Your task to perform on an android device: Search for Mexican restaurants on Maps Image 0: 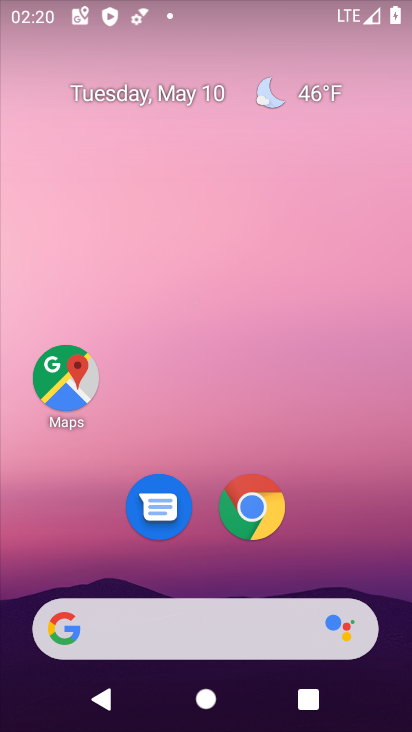
Step 0: drag from (258, 678) to (206, 81)
Your task to perform on an android device: Search for Mexican restaurants on Maps Image 1: 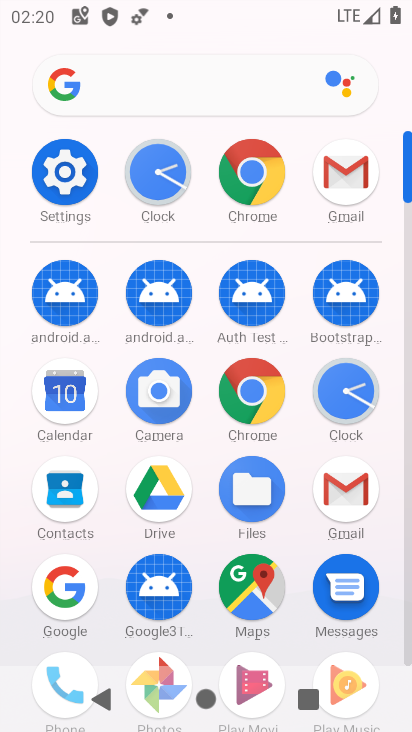
Step 1: click (248, 587)
Your task to perform on an android device: Search for Mexican restaurants on Maps Image 2: 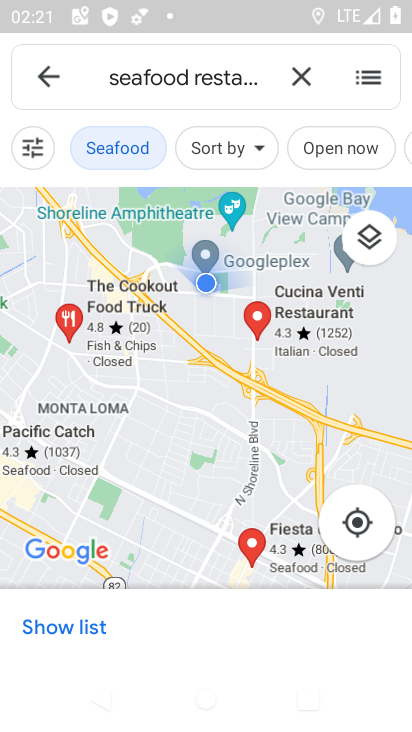
Step 2: click (303, 86)
Your task to perform on an android device: Search for Mexican restaurants on Maps Image 3: 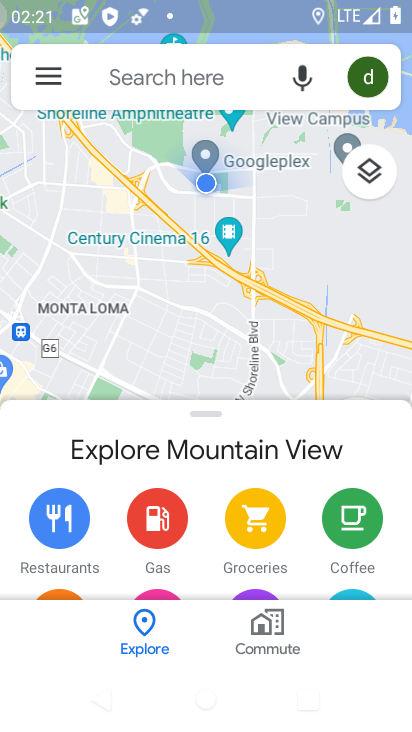
Step 3: click (197, 83)
Your task to perform on an android device: Search for Mexican restaurants on Maps Image 4: 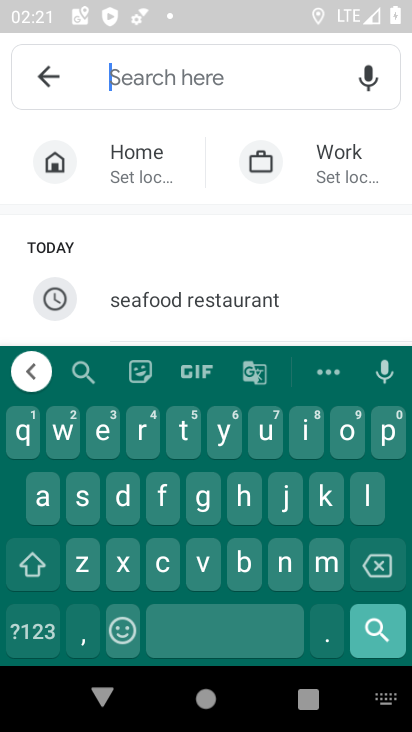
Step 4: click (318, 568)
Your task to perform on an android device: Search for Mexican restaurants on Maps Image 5: 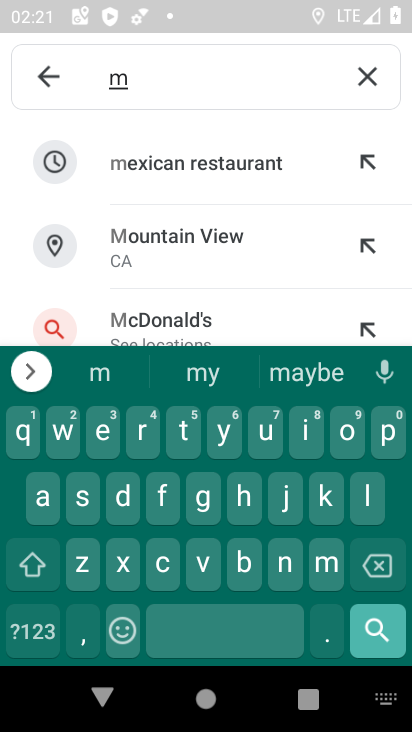
Step 5: click (217, 173)
Your task to perform on an android device: Search for Mexican restaurants on Maps Image 6: 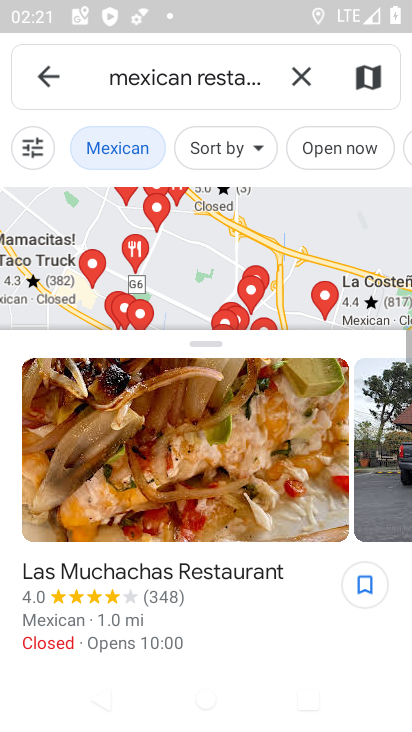
Step 6: task complete